Your task to perform on an android device: Open Youtube and go to "Your channel" Image 0: 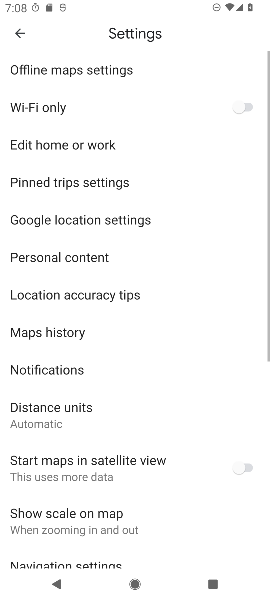
Step 0: press home button
Your task to perform on an android device: Open Youtube and go to "Your channel" Image 1: 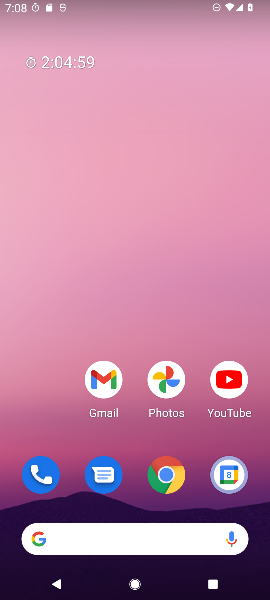
Step 1: drag from (57, 437) to (58, 210)
Your task to perform on an android device: Open Youtube and go to "Your channel" Image 2: 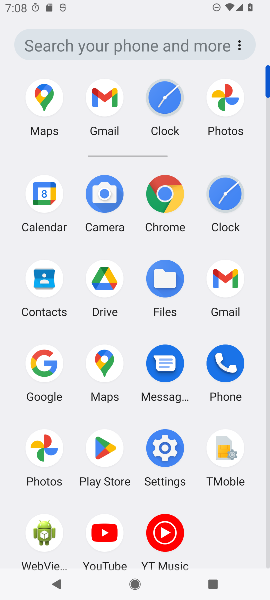
Step 2: click (102, 534)
Your task to perform on an android device: Open Youtube and go to "Your channel" Image 3: 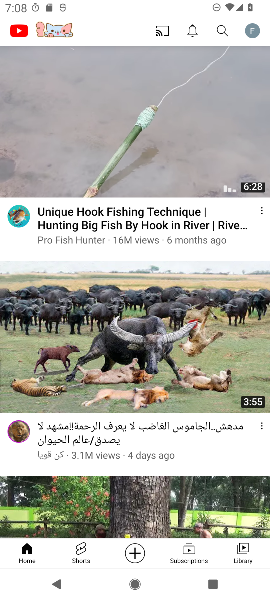
Step 3: click (254, 30)
Your task to perform on an android device: Open Youtube and go to "Your channel" Image 4: 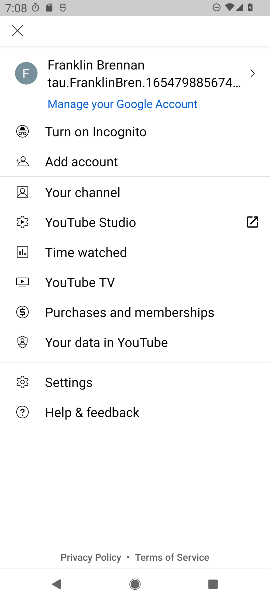
Step 4: click (115, 189)
Your task to perform on an android device: Open Youtube and go to "Your channel" Image 5: 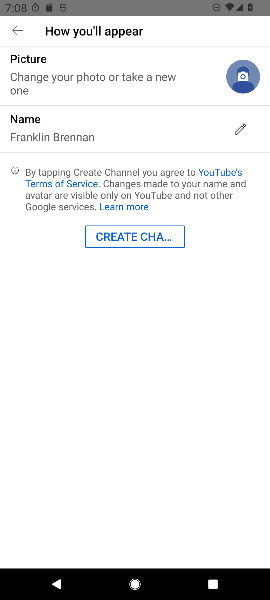
Step 5: task complete